Your task to perform on an android device: toggle improve location accuracy Image 0: 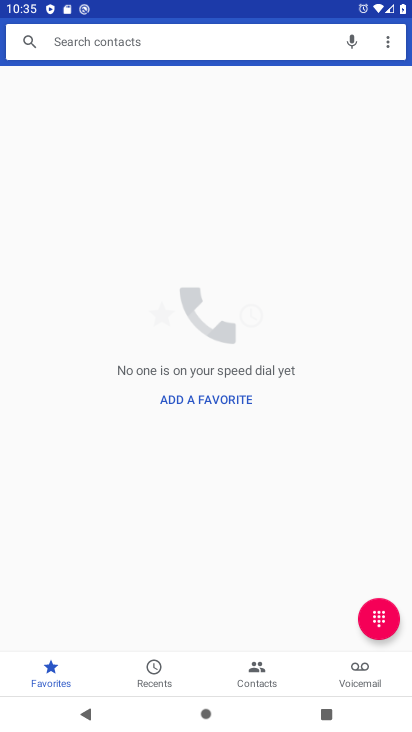
Step 0: press home button
Your task to perform on an android device: toggle improve location accuracy Image 1: 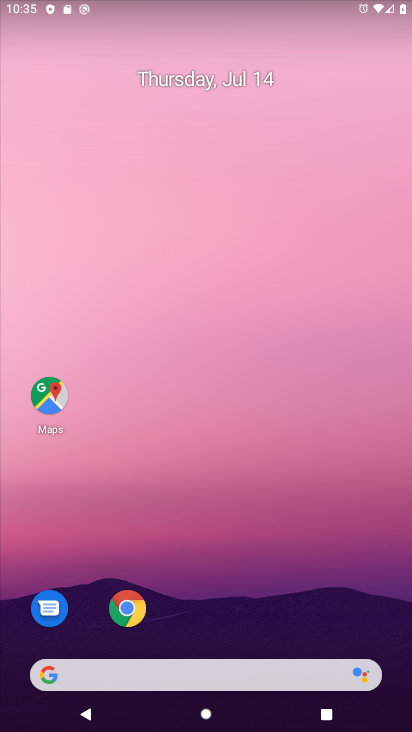
Step 1: drag from (212, 522) to (237, 4)
Your task to perform on an android device: toggle improve location accuracy Image 2: 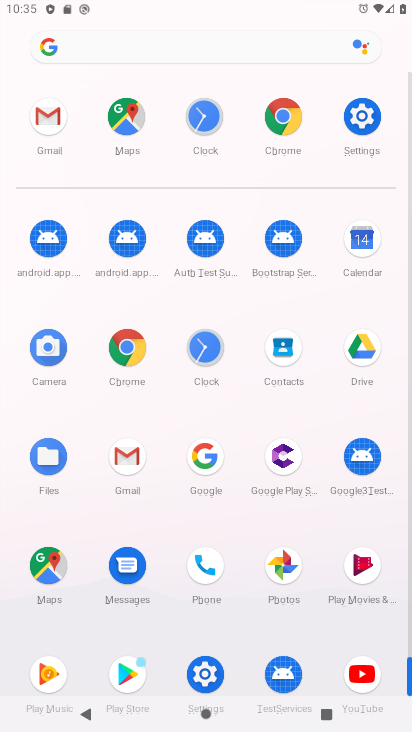
Step 2: click (206, 669)
Your task to perform on an android device: toggle improve location accuracy Image 3: 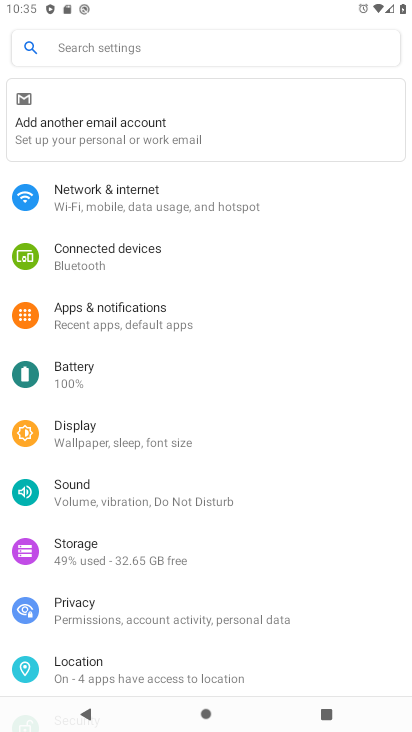
Step 3: click (95, 675)
Your task to perform on an android device: toggle improve location accuracy Image 4: 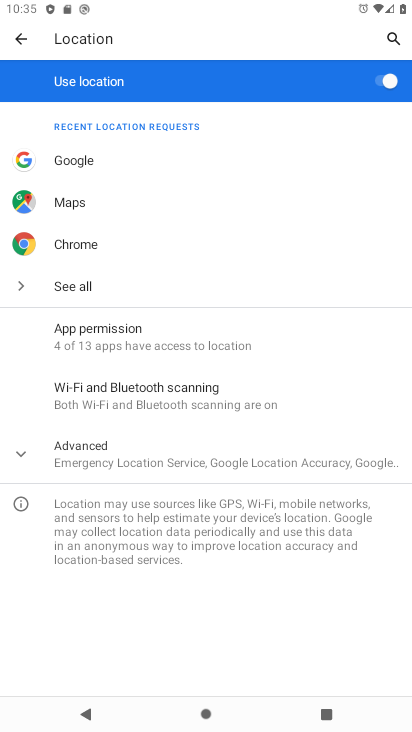
Step 4: click (137, 456)
Your task to perform on an android device: toggle improve location accuracy Image 5: 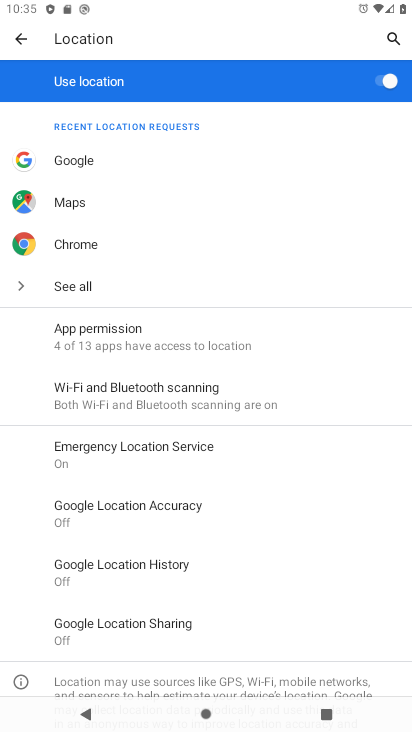
Step 5: click (156, 517)
Your task to perform on an android device: toggle improve location accuracy Image 6: 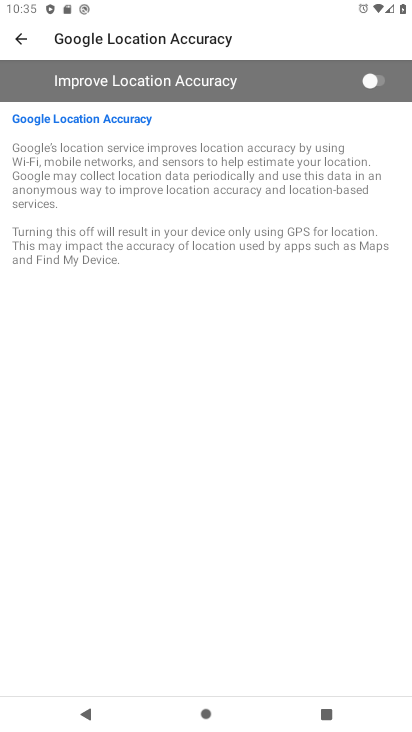
Step 6: click (386, 82)
Your task to perform on an android device: toggle improve location accuracy Image 7: 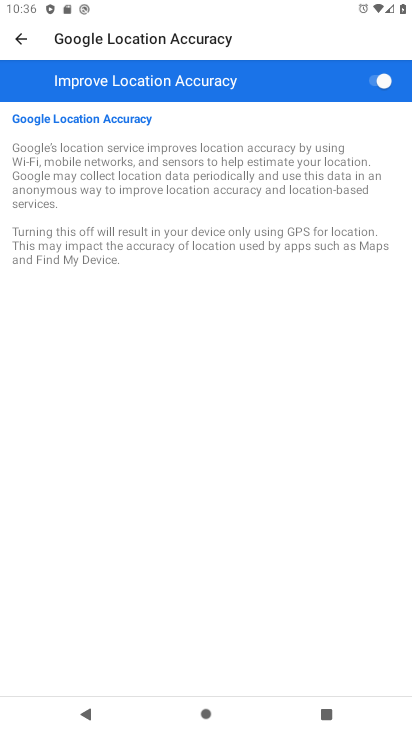
Step 7: task complete